Your task to perform on an android device: toggle javascript in the chrome app Image 0: 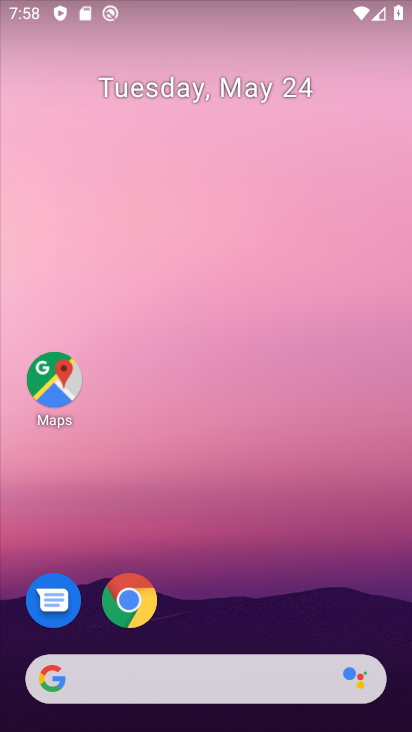
Step 0: click (131, 600)
Your task to perform on an android device: toggle javascript in the chrome app Image 1: 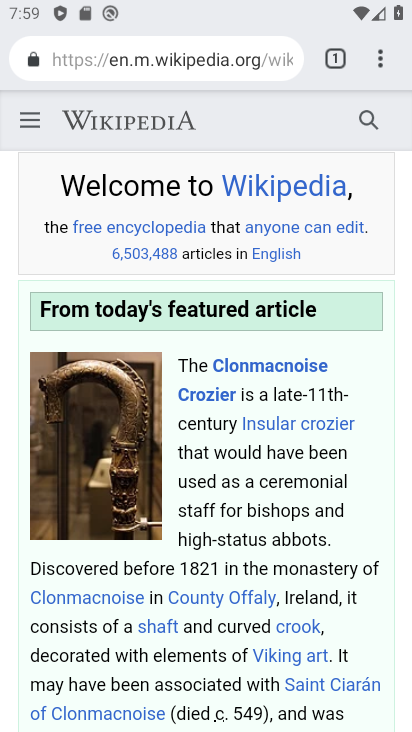
Step 1: click (381, 62)
Your task to perform on an android device: toggle javascript in the chrome app Image 2: 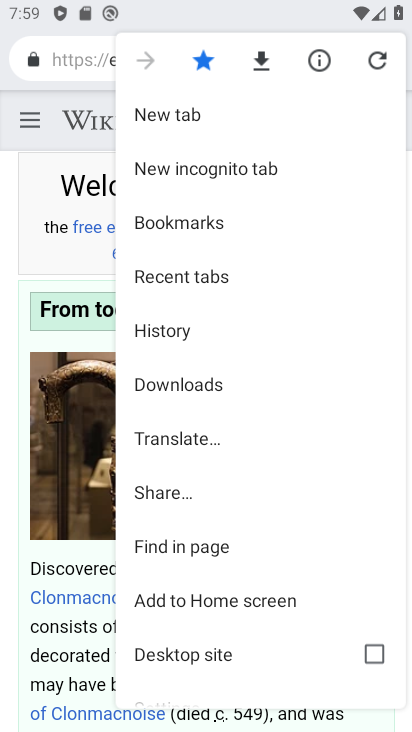
Step 2: drag from (178, 624) to (180, 245)
Your task to perform on an android device: toggle javascript in the chrome app Image 3: 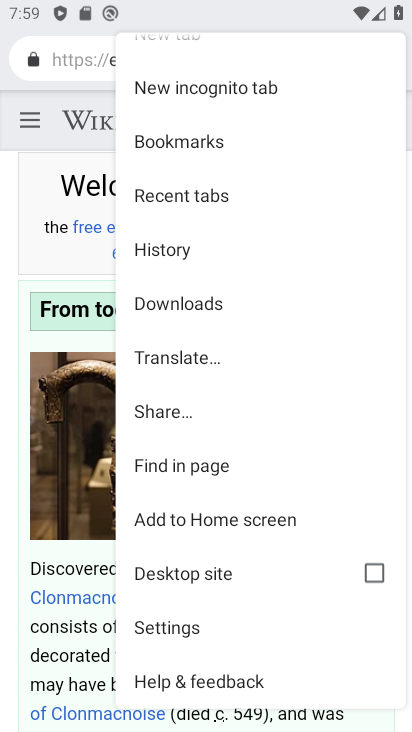
Step 3: click (175, 623)
Your task to perform on an android device: toggle javascript in the chrome app Image 4: 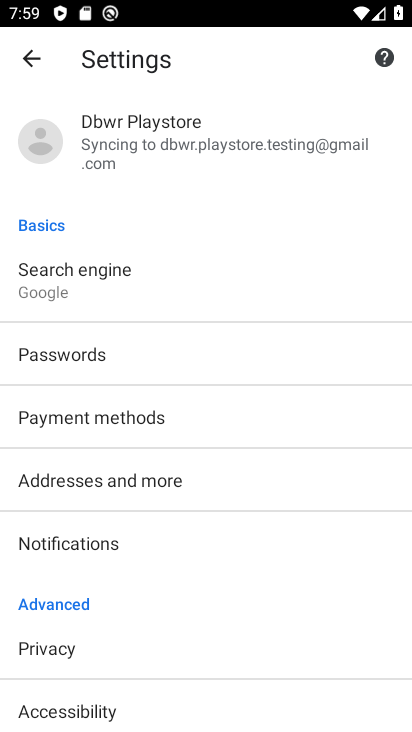
Step 4: drag from (161, 674) to (162, 366)
Your task to perform on an android device: toggle javascript in the chrome app Image 5: 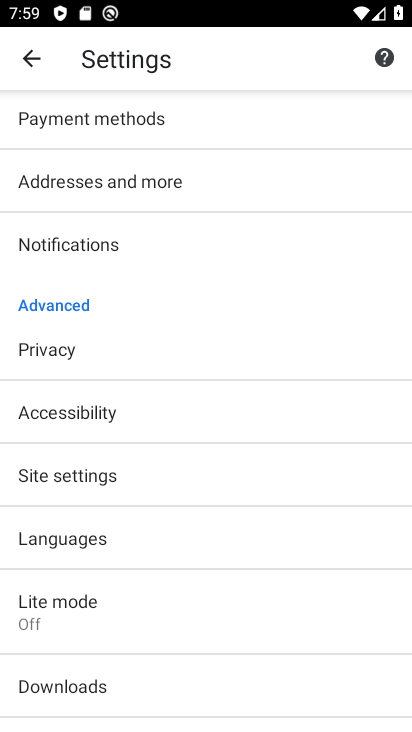
Step 5: click (56, 476)
Your task to perform on an android device: toggle javascript in the chrome app Image 6: 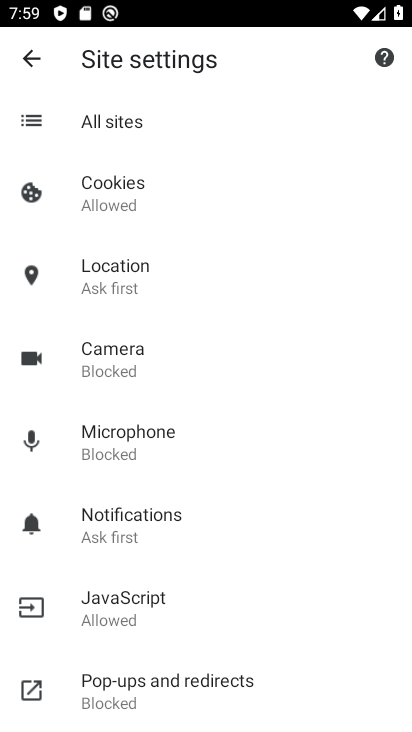
Step 6: click (111, 601)
Your task to perform on an android device: toggle javascript in the chrome app Image 7: 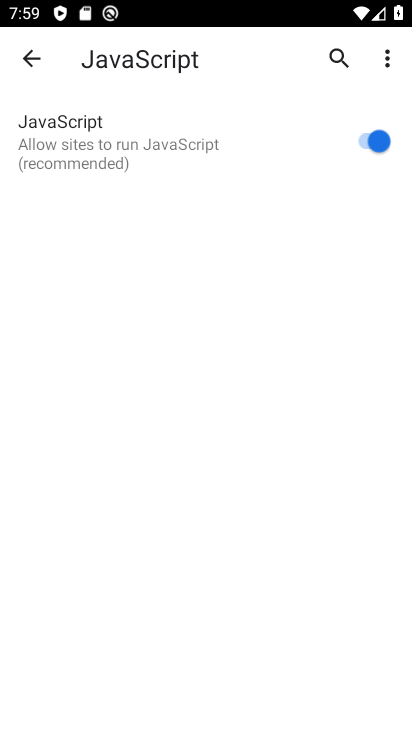
Step 7: click (365, 137)
Your task to perform on an android device: toggle javascript in the chrome app Image 8: 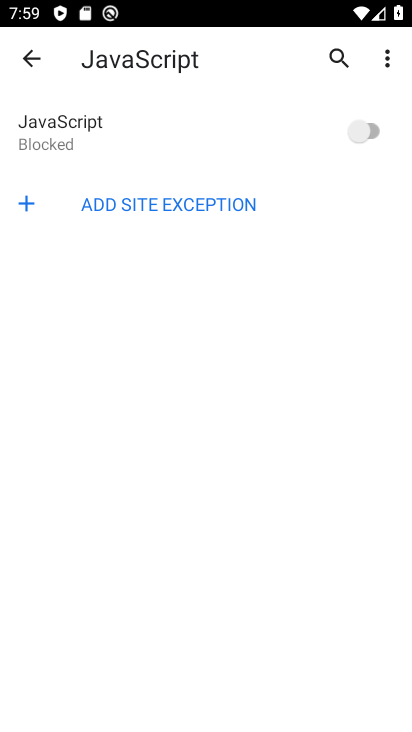
Step 8: task complete